Your task to perform on an android device: set default search engine in the chrome app Image 0: 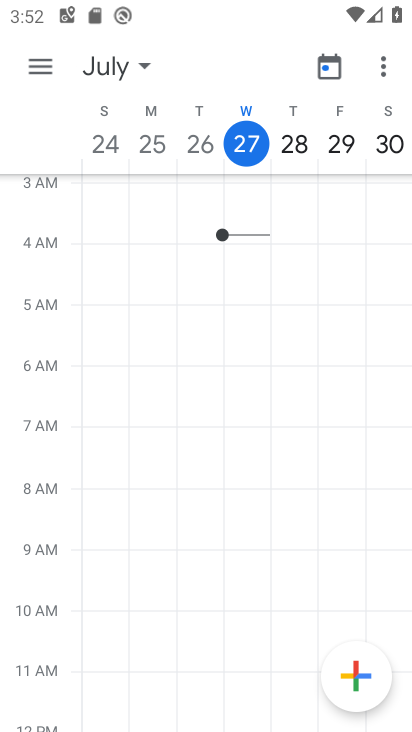
Step 0: press home button
Your task to perform on an android device: set default search engine in the chrome app Image 1: 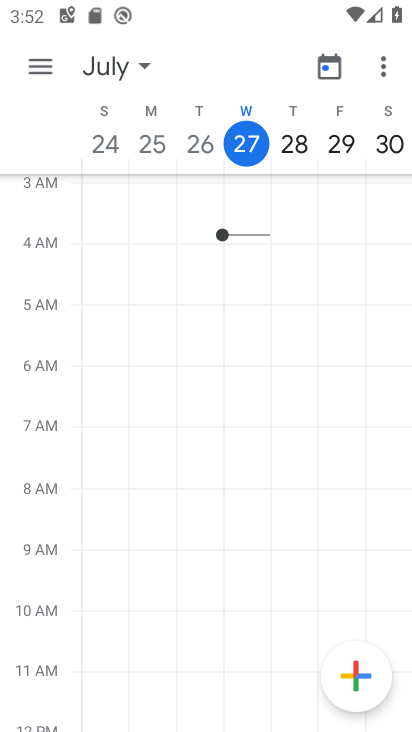
Step 1: press home button
Your task to perform on an android device: set default search engine in the chrome app Image 2: 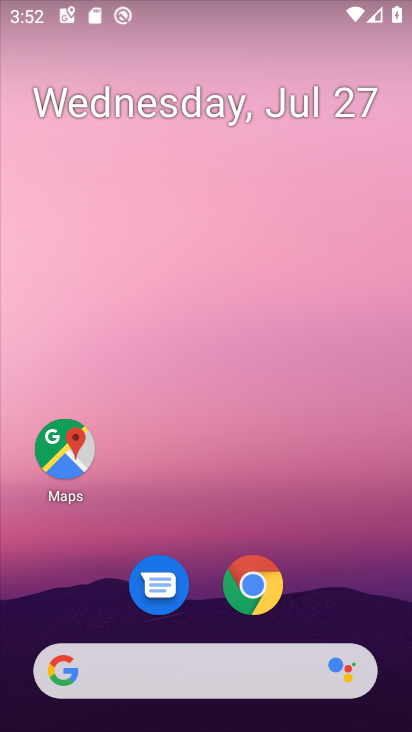
Step 2: click (265, 584)
Your task to perform on an android device: set default search engine in the chrome app Image 3: 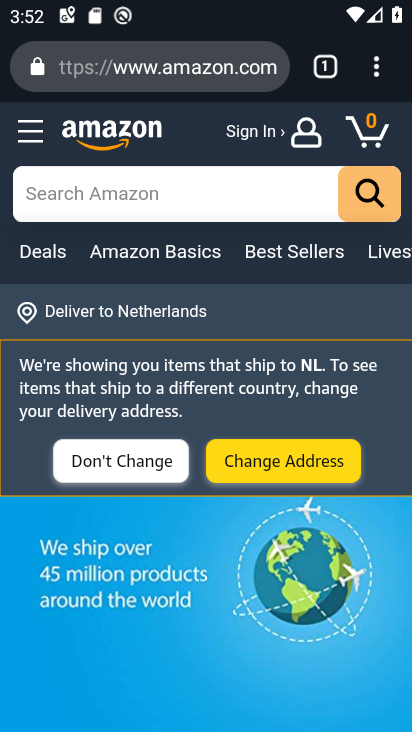
Step 3: click (378, 71)
Your task to perform on an android device: set default search engine in the chrome app Image 4: 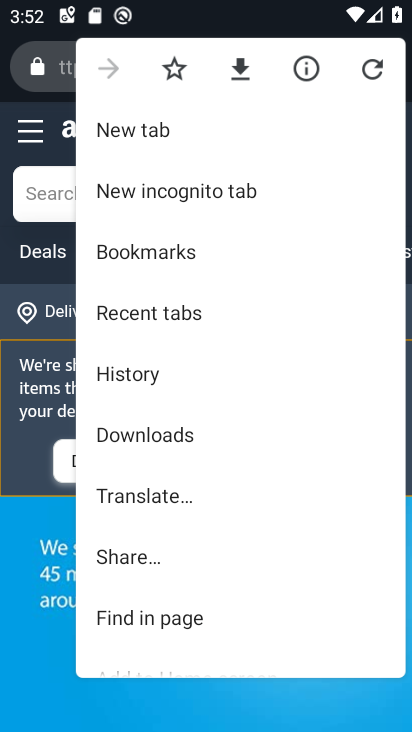
Step 4: drag from (244, 563) to (230, 209)
Your task to perform on an android device: set default search engine in the chrome app Image 5: 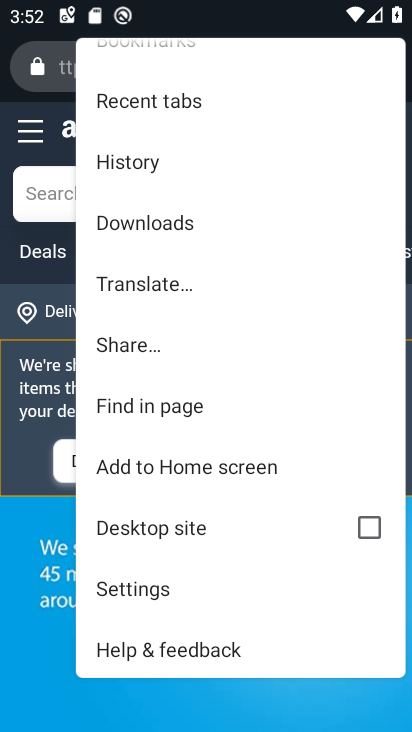
Step 5: click (146, 588)
Your task to perform on an android device: set default search engine in the chrome app Image 6: 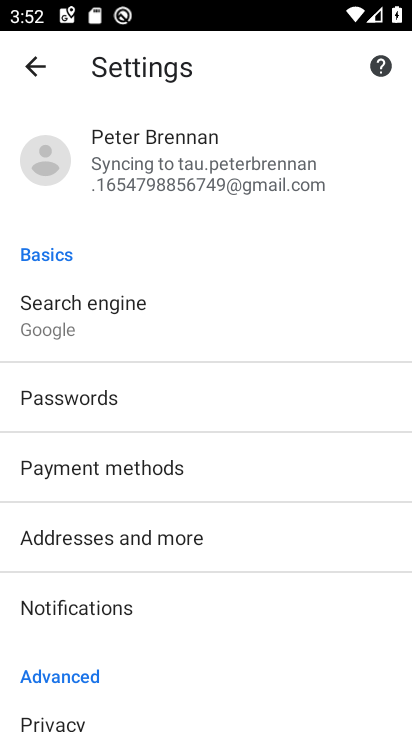
Step 6: click (99, 322)
Your task to perform on an android device: set default search engine in the chrome app Image 7: 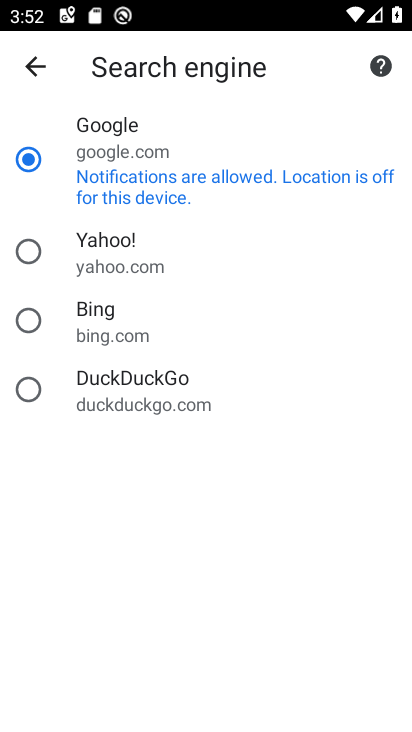
Step 7: task complete